Your task to perform on an android device: search for starred emails in the gmail app Image 0: 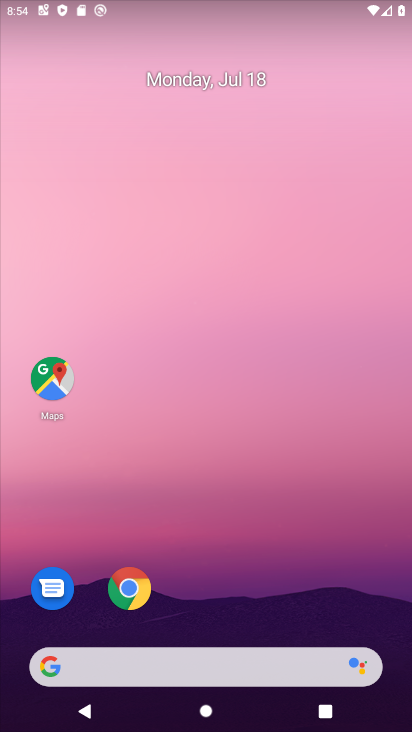
Step 0: drag from (270, 565) to (280, 131)
Your task to perform on an android device: search for starred emails in the gmail app Image 1: 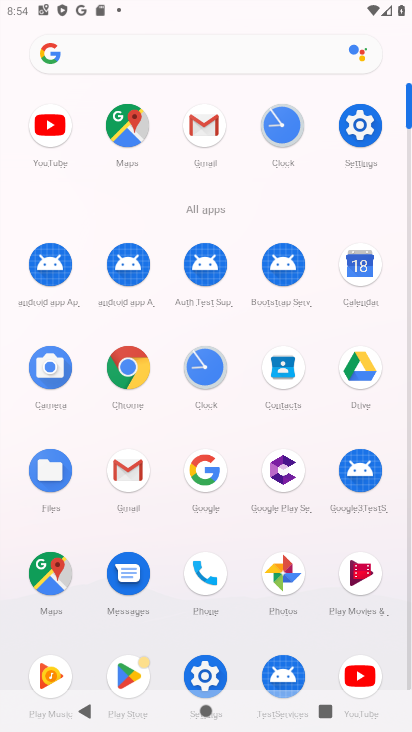
Step 1: click (204, 127)
Your task to perform on an android device: search for starred emails in the gmail app Image 2: 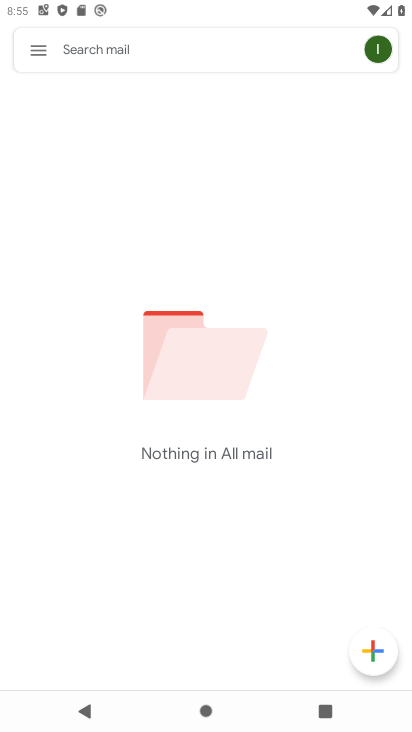
Step 2: click (37, 57)
Your task to perform on an android device: search for starred emails in the gmail app Image 3: 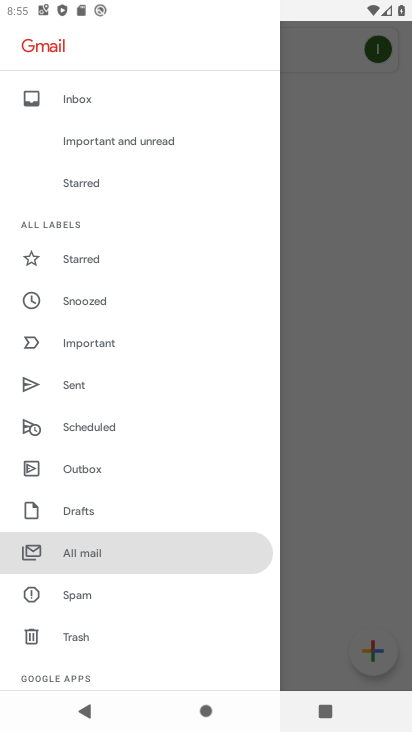
Step 3: click (127, 268)
Your task to perform on an android device: search for starred emails in the gmail app Image 4: 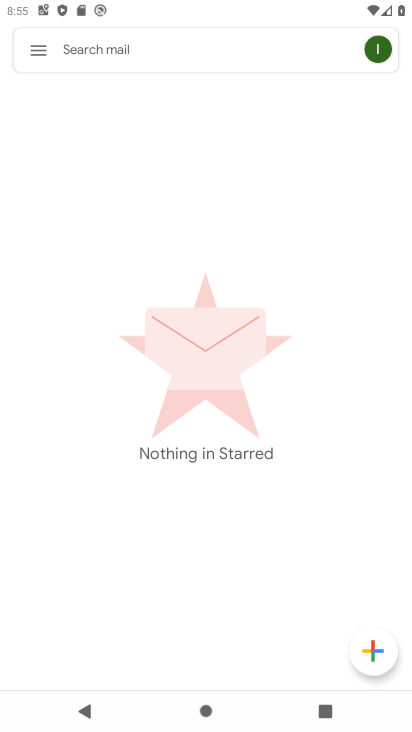
Step 4: click (127, 268)
Your task to perform on an android device: search for starred emails in the gmail app Image 5: 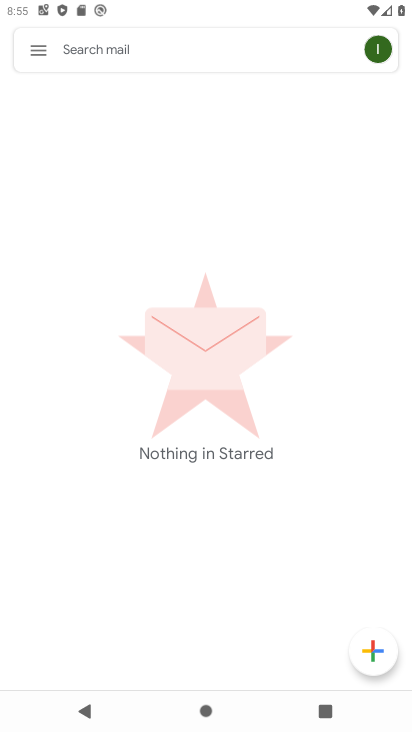
Step 5: task complete